Your task to perform on an android device: Open Google Maps and go to "Timeline" Image 0: 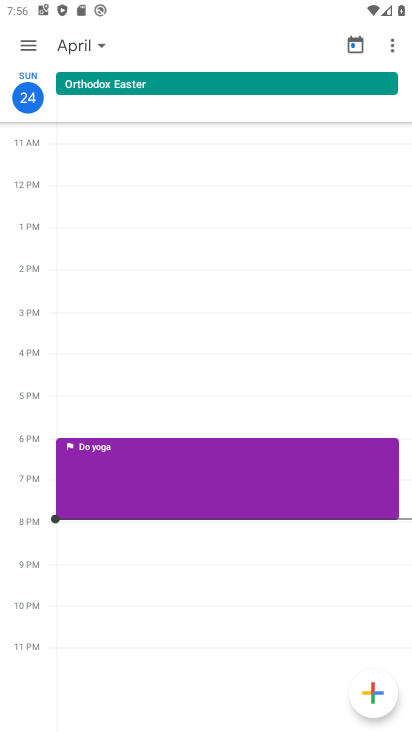
Step 0: press back button
Your task to perform on an android device: Open Google Maps and go to "Timeline" Image 1: 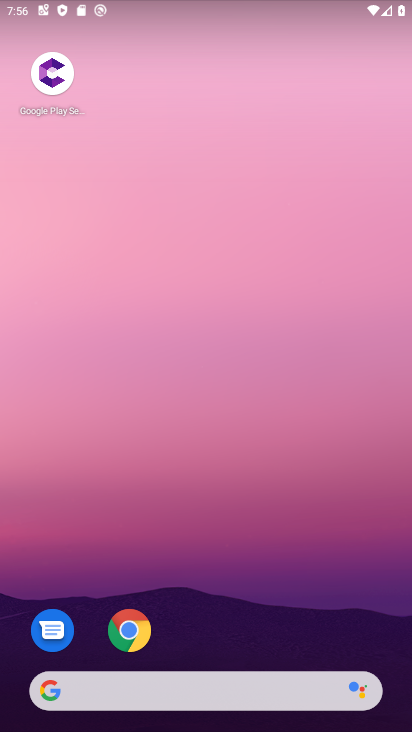
Step 1: drag from (235, 610) to (227, 37)
Your task to perform on an android device: Open Google Maps and go to "Timeline" Image 2: 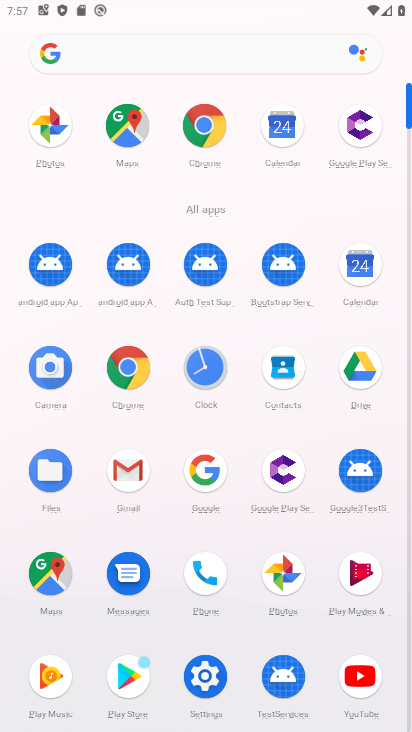
Step 2: drag from (2, 522) to (4, 295)
Your task to perform on an android device: Open Google Maps and go to "Timeline" Image 3: 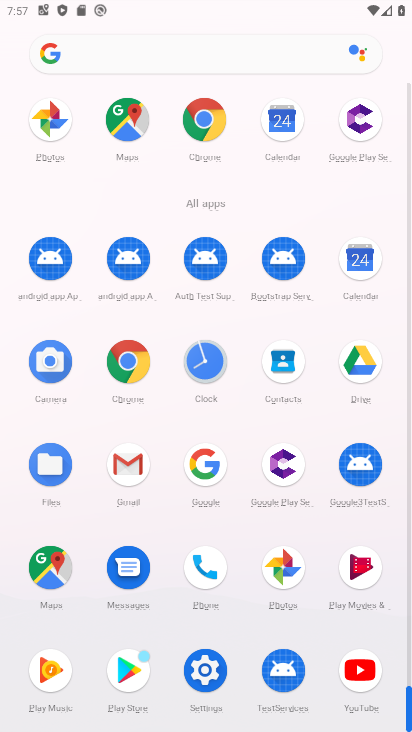
Step 3: click (47, 572)
Your task to perform on an android device: Open Google Maps and go to "Timeline" Image 4: 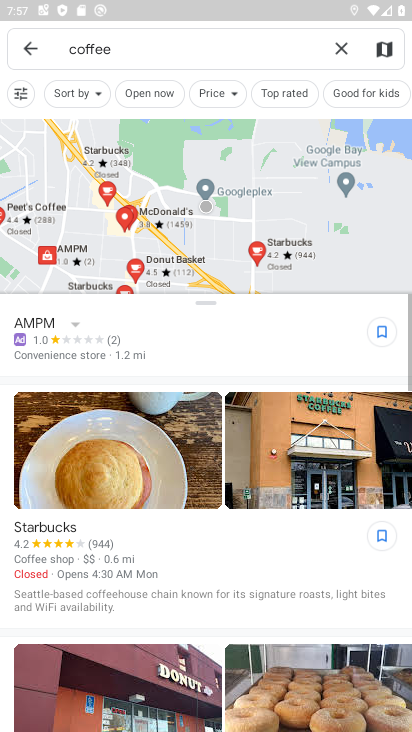
Step 4: click (31, 44)
Your task to perform on an android device: Open Google Maps and go to "Timeline" Image 5: 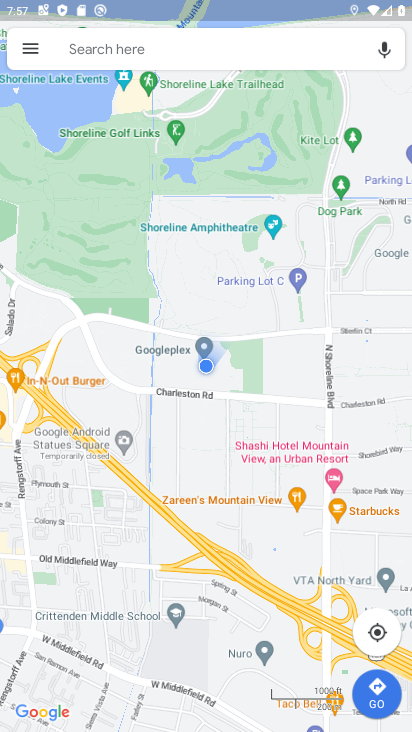
Step 5: click (31, 44)
Your task to perform on an android device: Open Google Maps and go to "Timeline" Image 6: 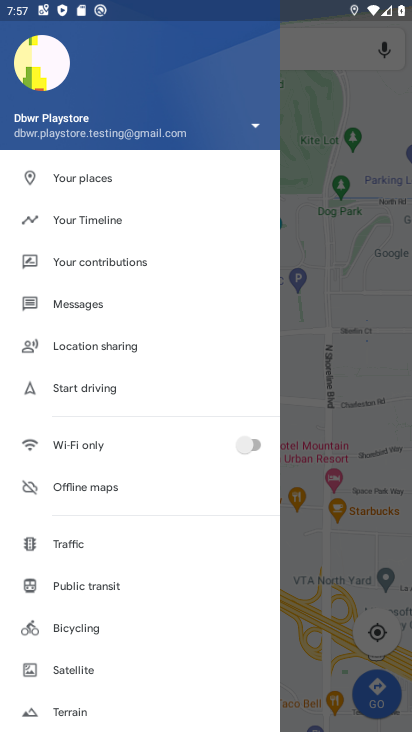
Step 6: click (91, 215)
Your task to perform on an android device: Open Google Maps and go to "Timeline" Image 7: 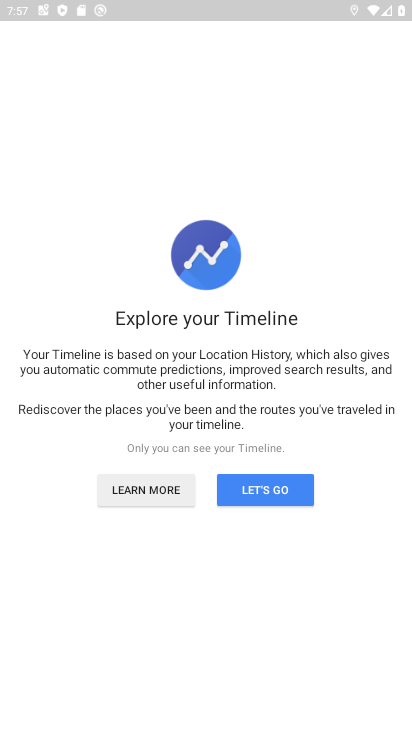
Step 7: click (291, 503)
Your task to perform on an android device: Open Google Maps and go to "Timeline" Image 8: 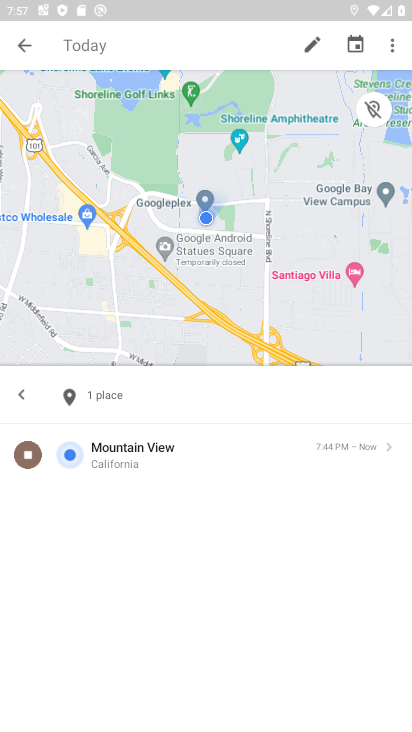
Step 8: task complete